Your task to perform on an android device: read, delete, or share a saved page in the chrome app Image 0: 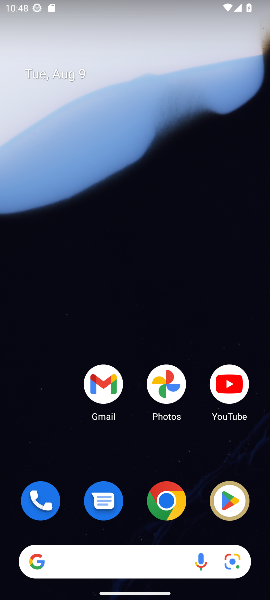
Step 0: click (160, 500)
Your task to perform on an android device: read, delete, or share a saved page in the chrome app Image 1: 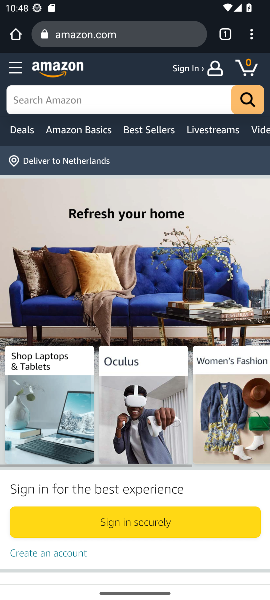
Step 1: click (248, 35)
Your task to perform on an android device: read, delete, or share a saved page in the chrome app Image 2: 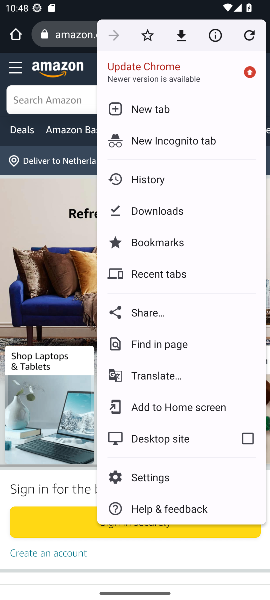
Step 2: task complete